Your task to perform on an android device: Open network settings Image 0: 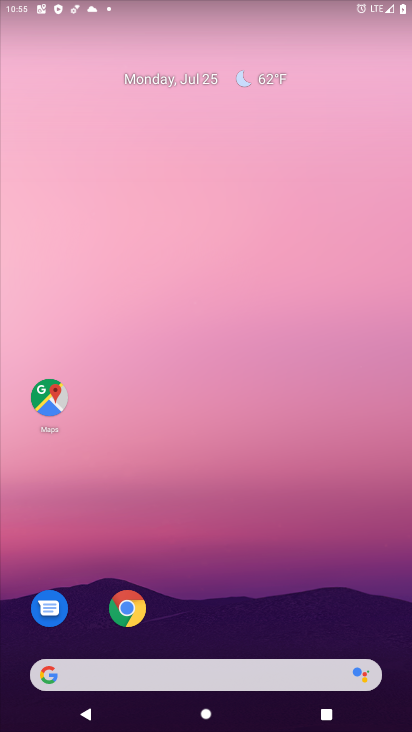
Step 0: drag from (221, 630) to (249, 2)
Your task to perform on an android device: Open network settings Image 1: 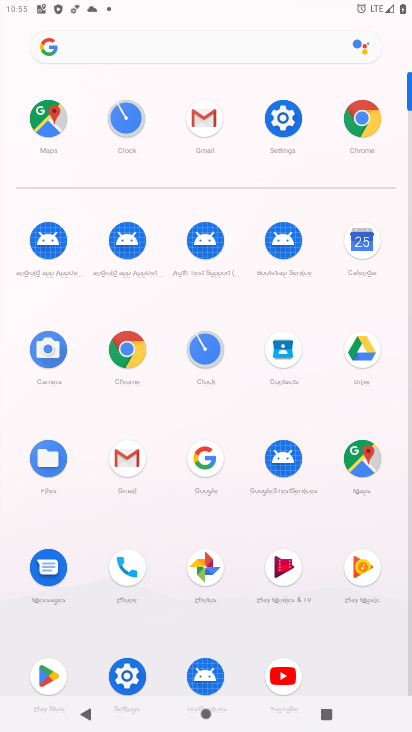
Step 1: click (127, 670)
Your task to perform on an android device: Open network settings Image 2: 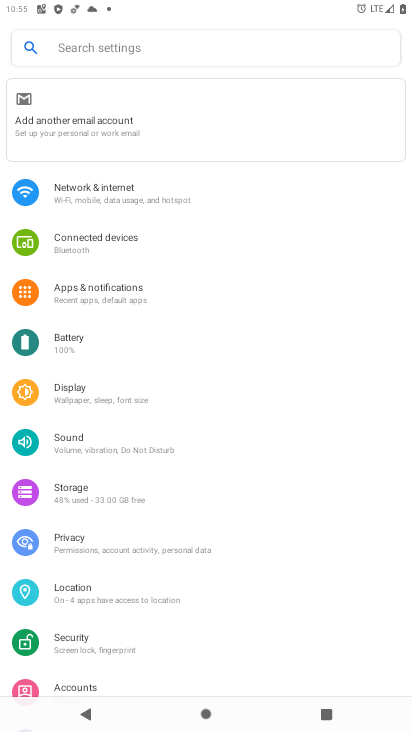
Step 2: click (120, 193)
Your task to perform on an android device: Open network settings Image 3: 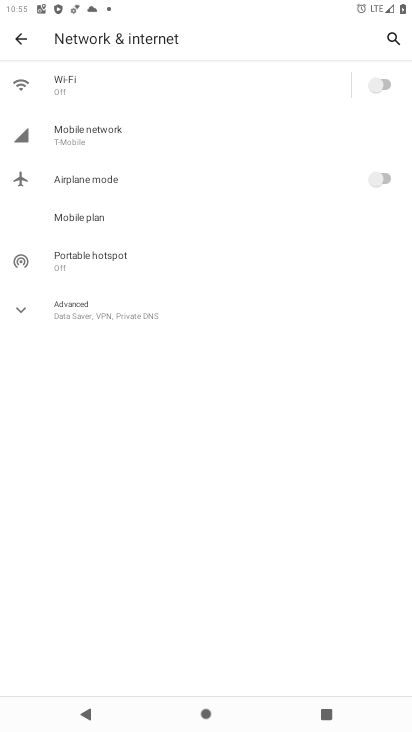
Step 3: click (130, 133)
Your task to perform on an android device: Open network settings Image 4: 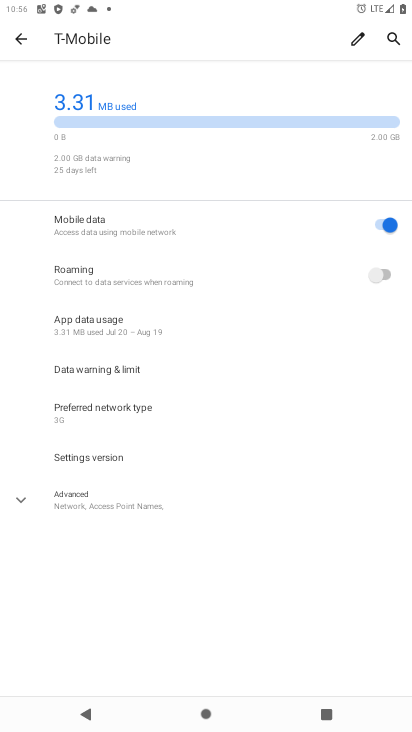
Step 4: task complete